Your task to perform on an android device: Search for pizza restaurants on Maps Image 0: 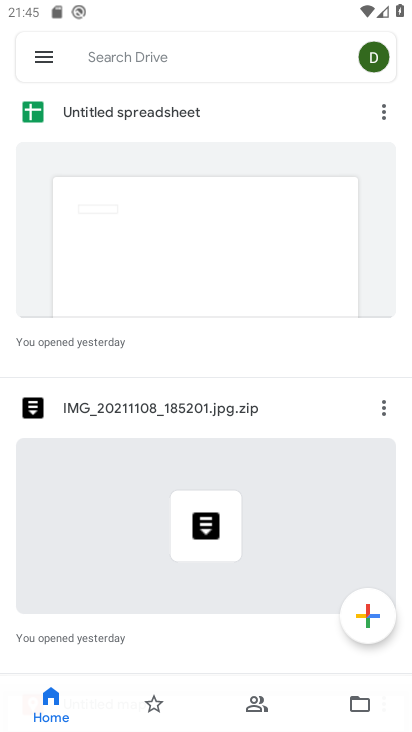
Step 0: press home button
Your task to perform on an android device: Search for pizza restaurants on Maps Image 1: 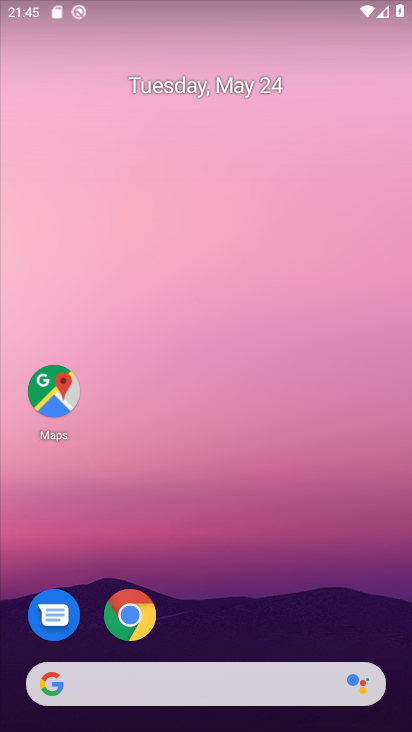
Step 1: drag from (230, 518) to (235, 235)
Your task to perform on an android device: Search for pizza restaurants on Maps Image 2: 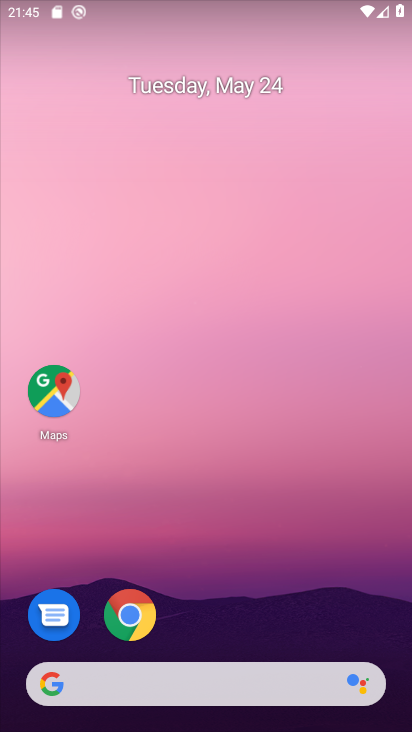
Step 2: drag from (221, 584) to (230, 195)
Your task to perform on an android device: Search for pizza restaurants on Maps Image 3: 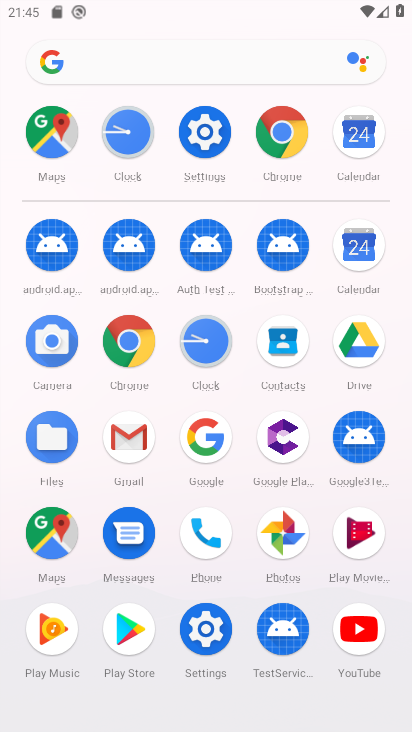
Step 3: click (56, 513)
Your task to perform on an android device: Search for pizza restaurants on Maps Image 4: 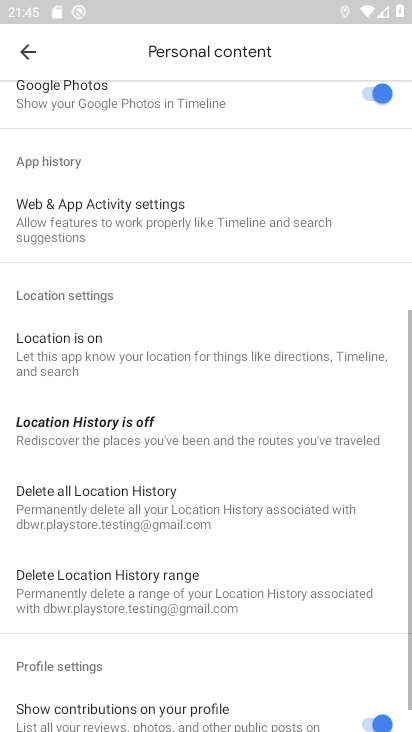
Step 4: click (29, 51)
Your task to perform on an android device: Search for pizza restaurants on Maps Image 5: 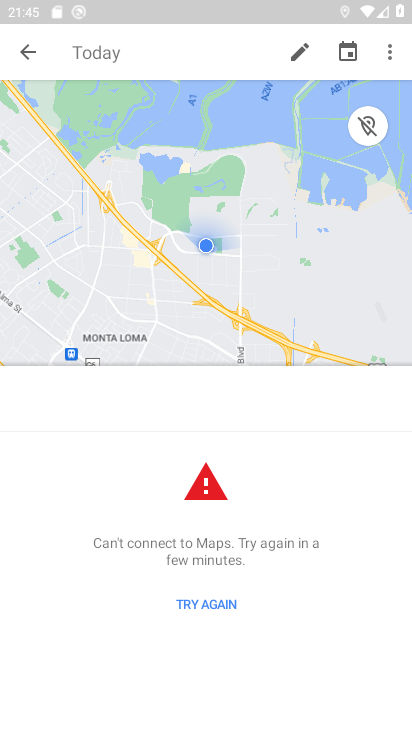
Step 5: click (21, 54)
Your task to perform on an android device: Search for pizza restaurants on Maps Image 6: 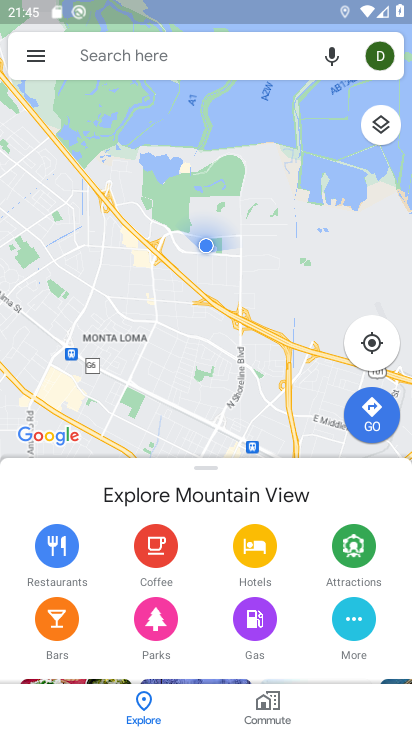
Step 6: click (132, 54)
Your task to perform on an android device: Search for pizza restaurants on Maps Image 7: 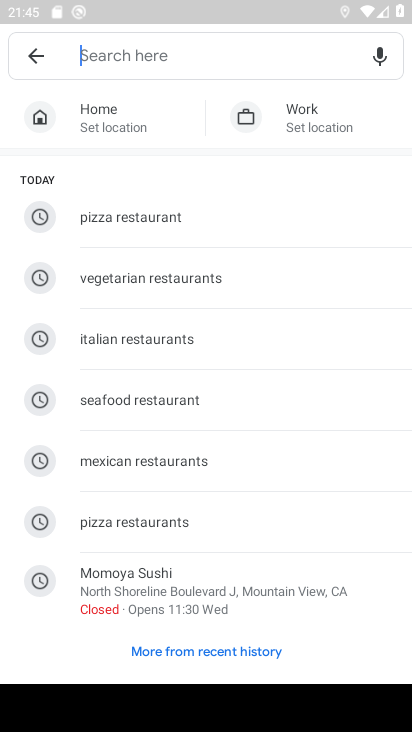
Step 7: type " pizza restaurants"
Your task to perform on an android device: Search for pizza restaurants on Maps Image 8: 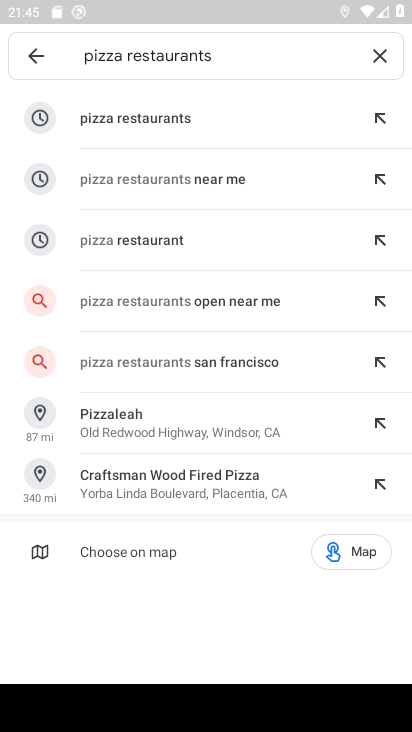
Step 8: click (122, 206)
Your task to perform on an android device: Search for pizza restaurants on Maps Image 9: 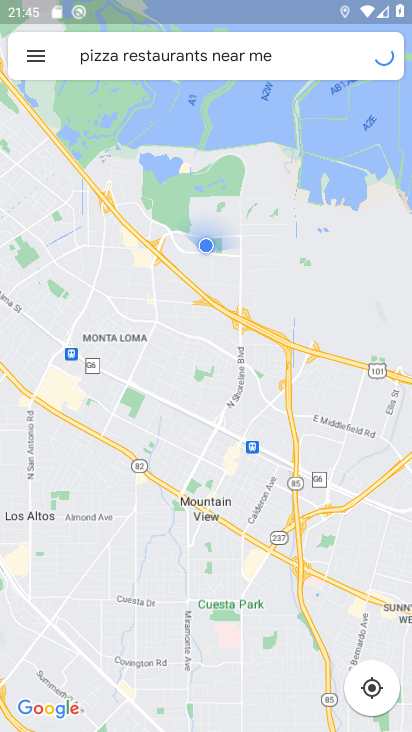
Step 9: click (145, 127)
Your task to perform on an android device: Search for pizza restaurants on Maps Image 10: 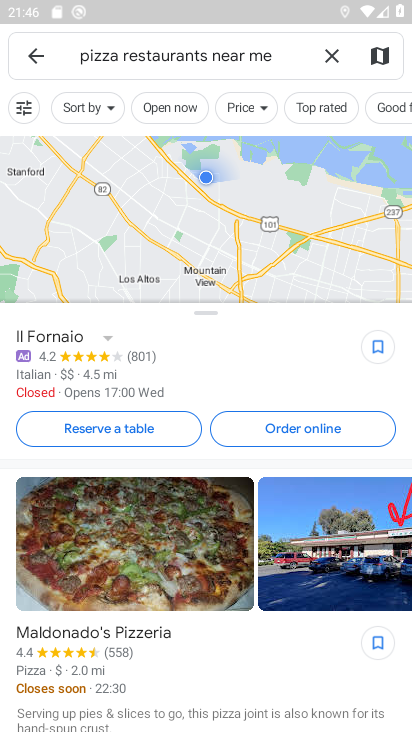
Step 10: task complete